Your task to perform on an android device: Open the phone app and click the voicemail tab. Image 0: 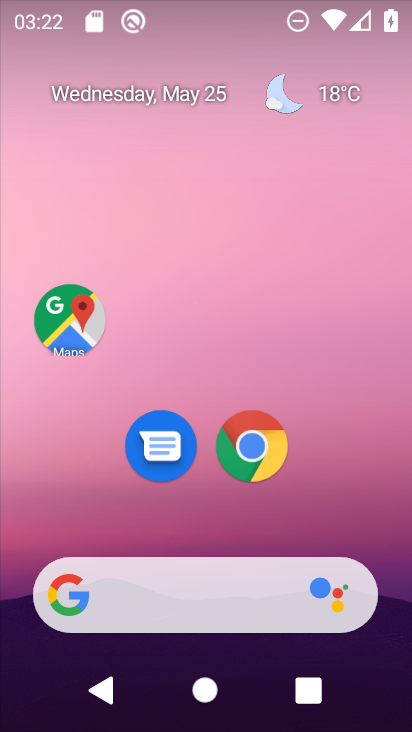
Step 0: drag from (244, 595) to (239, 107)
Your task to perform on an android device: Open the phone app and click the voicemail tab. Image 1: 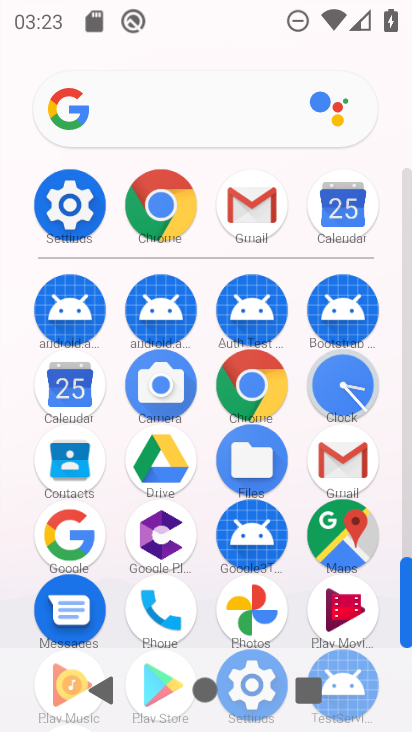
Step 1: click (185, 607)
Your task to perform on an android device: Open the phone app and click the voicemail tab. Image 2: 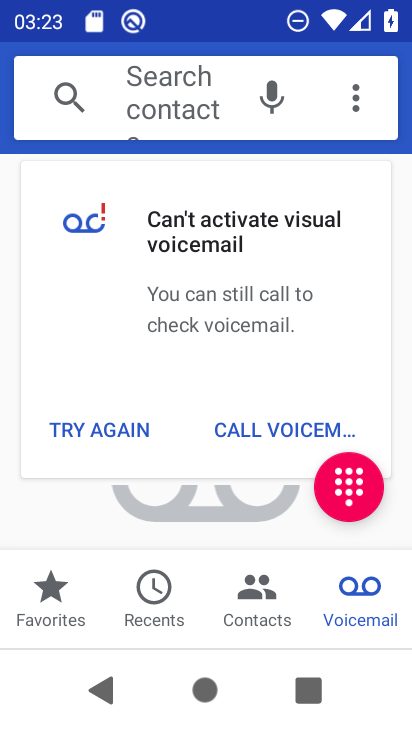
Step 2: task complete